Your task to perform on an android device: What's the weather going to be tomorrow? Image 0: 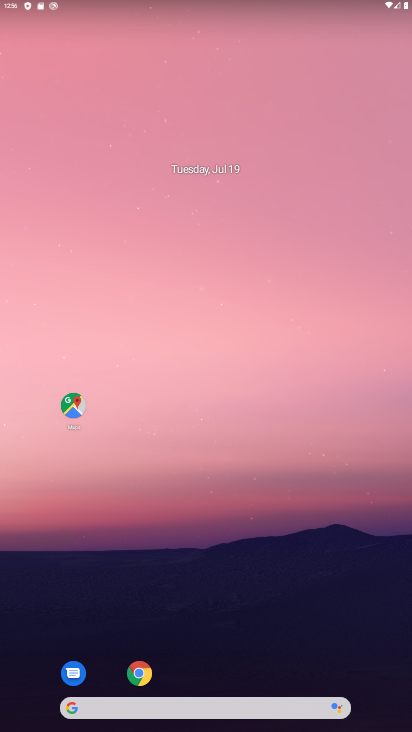
Step 0: click (216, 696)
Your task to perform on an android device: What's the weather going to be tomorrow? Image 1: 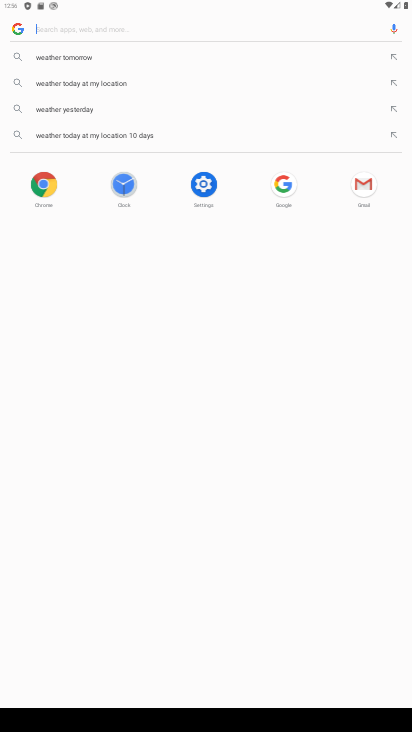
Step 1: click (126, 129)
Your task to perform on an android device: What's the weather going to be tomorrow? Image 2: 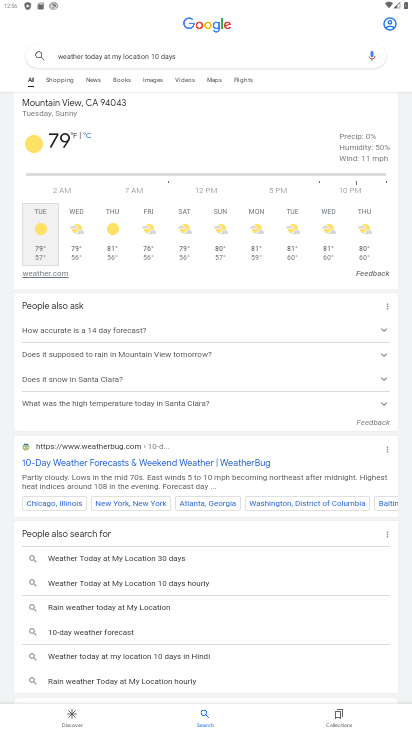
Step 2: task complete